Your task to perform on an android device: turn on translation in the chrome app Image 0: 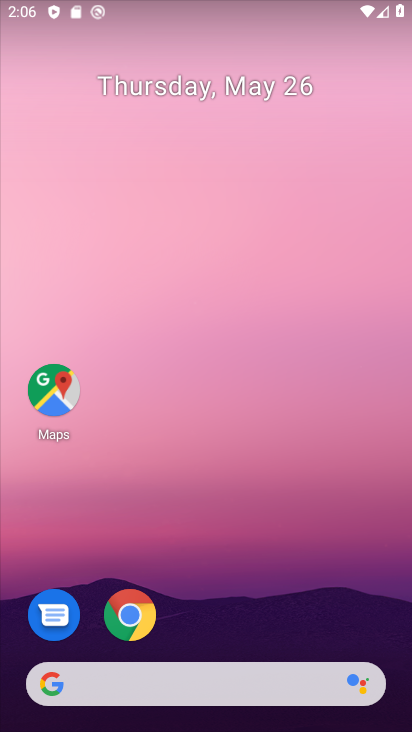
Step 0: click (132, 622)
Your task to perform on an android device: turn on translation in the chrome app Image 1: 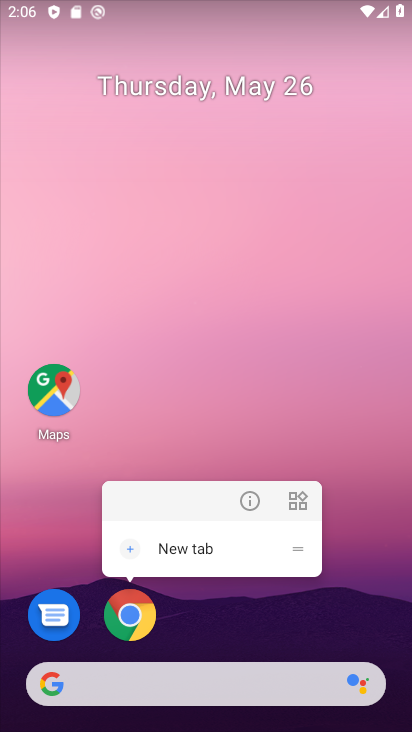
Step 1: click (137, 620)
Your task to perform on an android device: turn on translation in the chrome app Image 2: 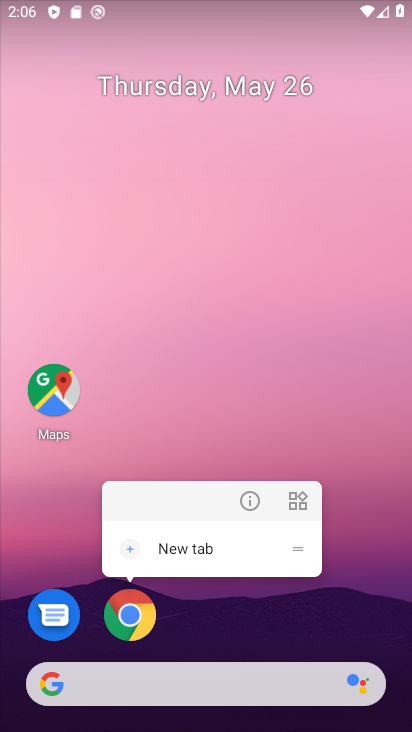
Step 2: click (137, 620)
Your task to perform on an android device: turn on translation in the chrome app Image 3: 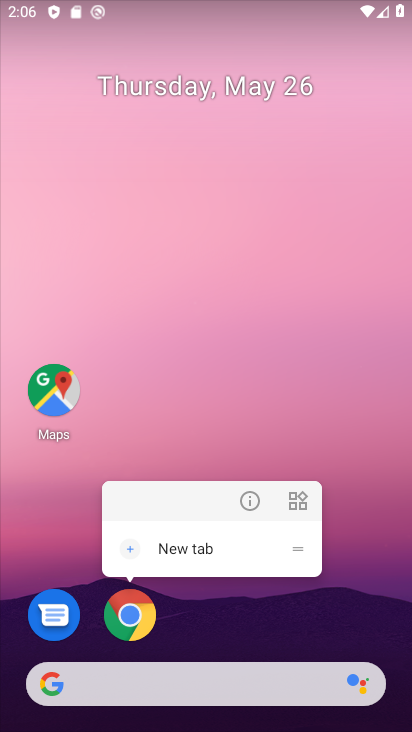
Step 3: click (137, 620)
Your task to perform on an android device: turn on translation in the chrome app Image 4: 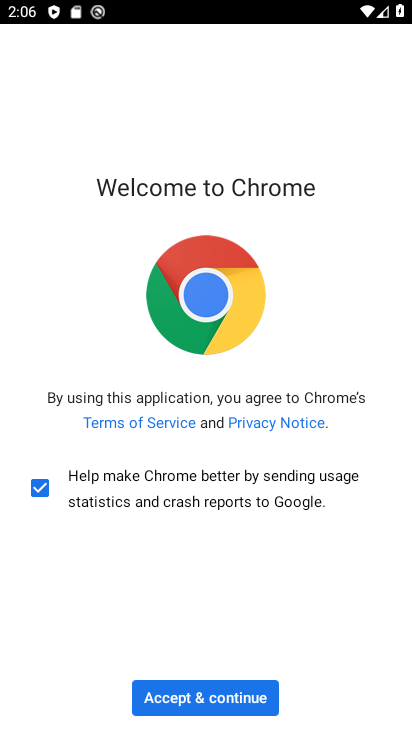
Step 4: click (245, 705)
Your task to perform on an android device: turn on translation in the chrome app Image 5: 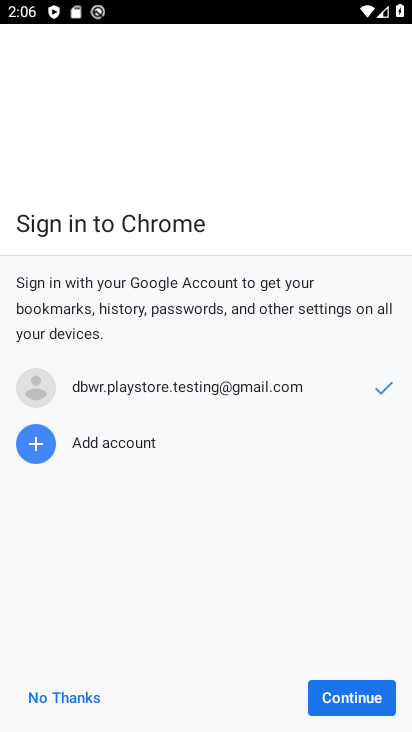
Step 5: click (339, 697)
Your task to perform on an android device: turn on translation in the chrome app Image 6: 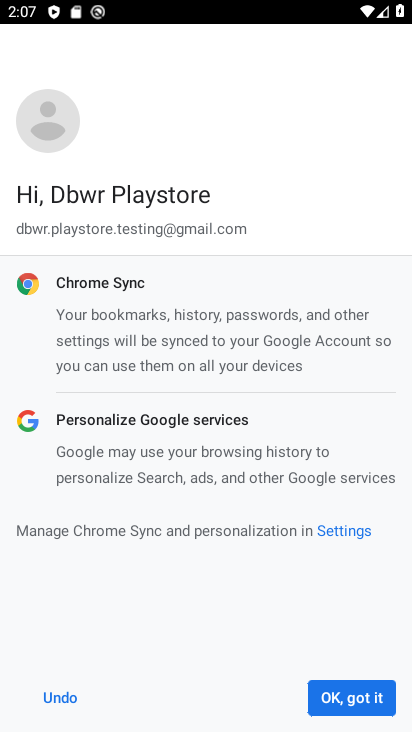
Step 6: click (350, 693)
Your task to perform on an android device: turn on translation in the chrome app Image 7: 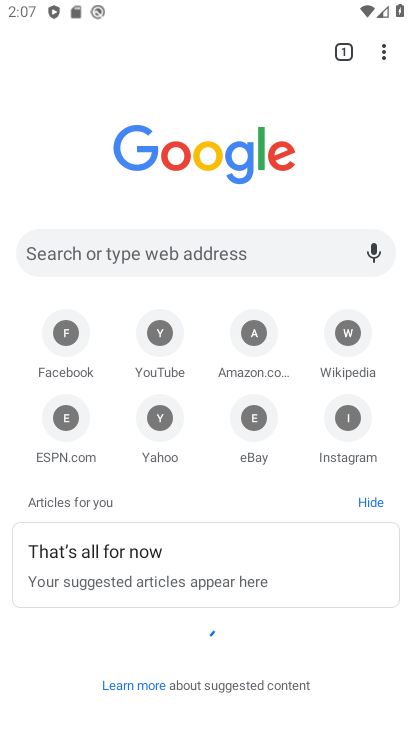
Step 7: drag from (395, 54) to (286, 438)
Your task to perform on an android device: turn on translation in the chrome app Image 8: 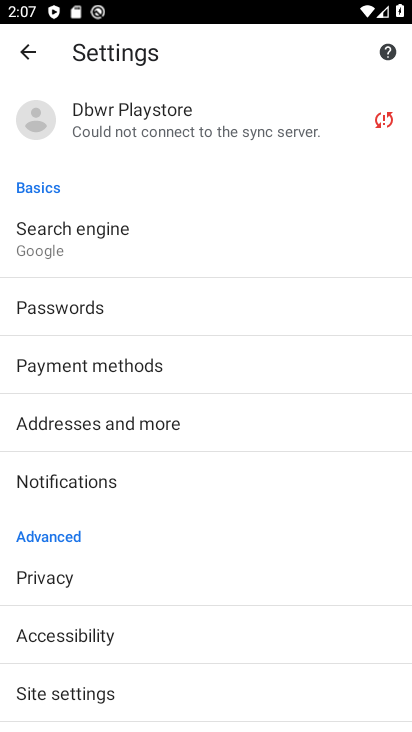
Step 8: drag from (179, 643) to (309, 299)
Your task to perform on an android device: turn on translation in the chrome app Image 9: 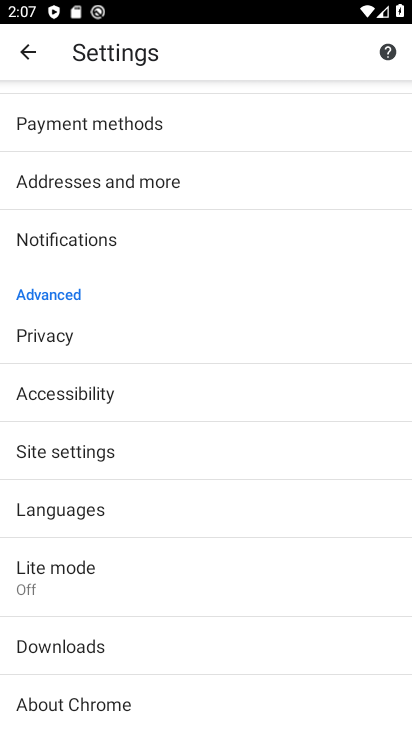
Step 9: click (101, 513)
Your task to perform on an android device: turn on translation in the chrome app Image 10: 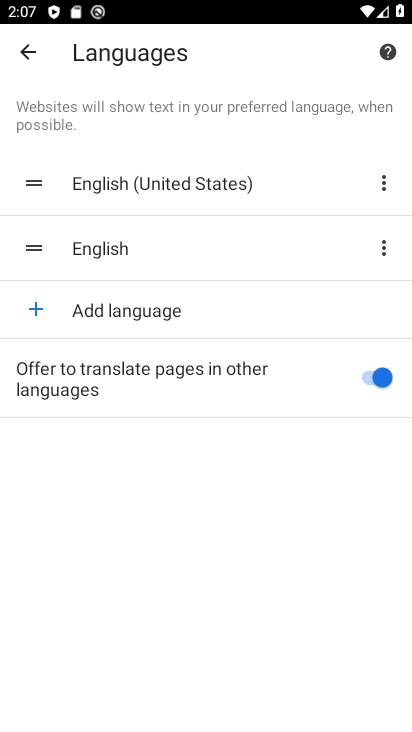
Step 10: task complete